Your task to perform on an android device: open a new tab in the chrome app Image 0: 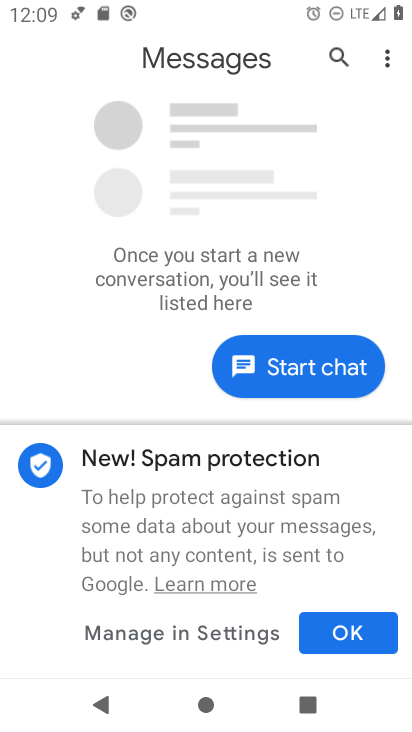
Step 0: press back button
Your task to perform on an android device: open a new tab in the chrome app Image 1: 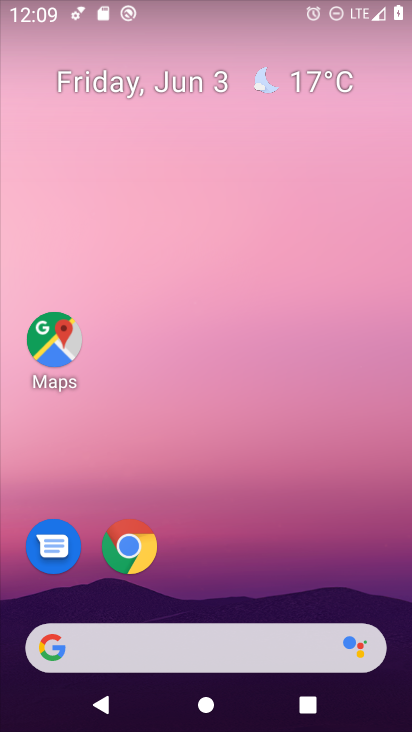
Step 1: drag from (260, 500) to (241, 18)
Your task to perform on an android device: open a new tab in the chrome app Image 2: 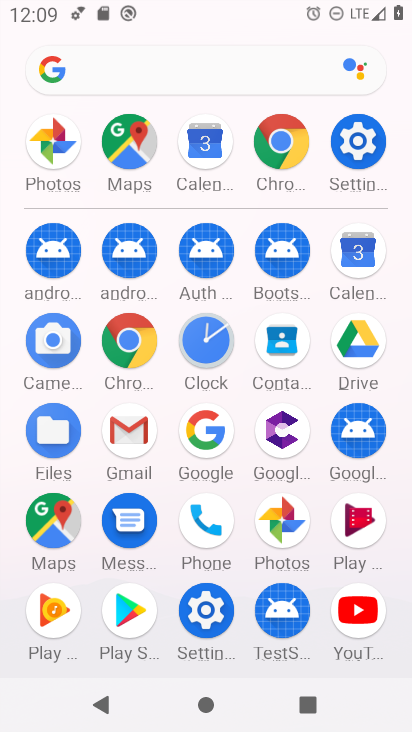
Step 2: click (131, 330)
Your task to perform on an android device: open a new tab in the chrome app Image 3: 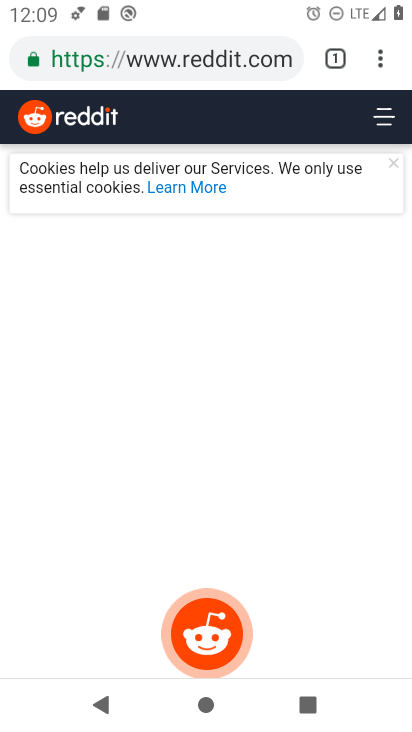
Step 3: task complete